Your task to perform on an android device: Open Google Chrome Image 0: 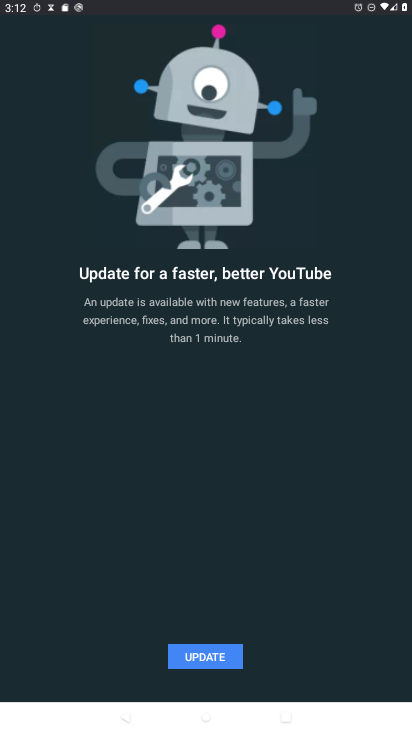
Step 0: press home button
Your task to perform on an android device: Open Google Chrome Image 1: 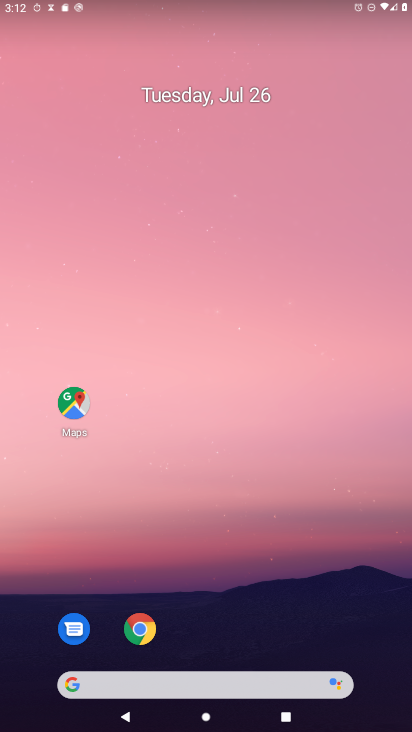
Step 1: drag from (314, 691) to (329, 167)
Your task to perform on an android device: Open Google Chrome Image 2: 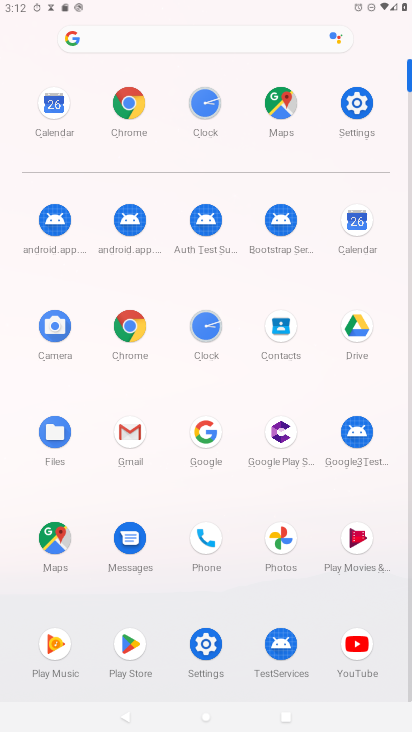
Step 2: click (133, 322)
Your task to perform on an android device: Open Google Chrome Image 3: 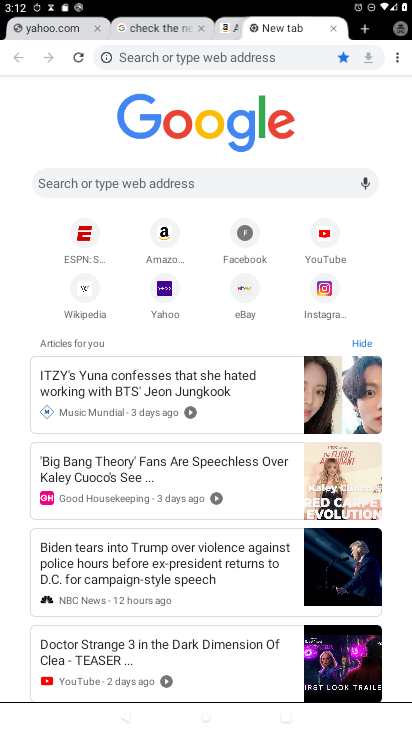
Step 3: task complete